Your task to perform on an android device: add a contact in the contacts app Image 0: 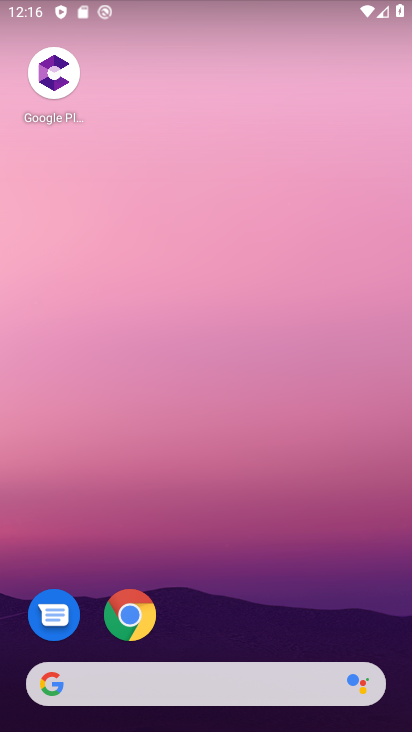
Step 0: drag from (314, 506) to (282, 173)
Your task to perform on an android device: add a contact in the contacts app Image 1: 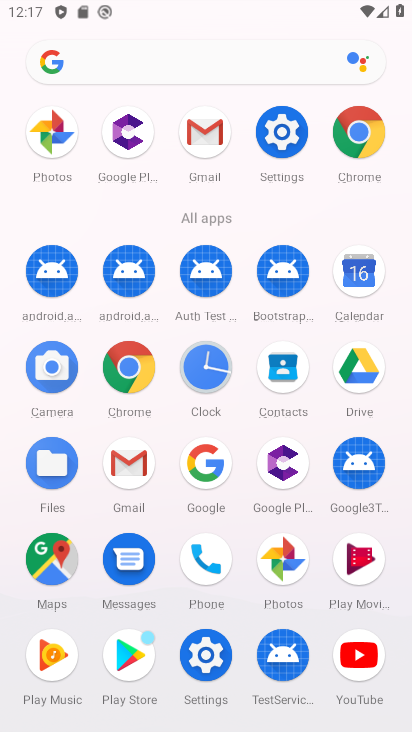
Step 1: click (285, 371)
Your task to perform on an android device: add a contact in the contacts app Image 2: 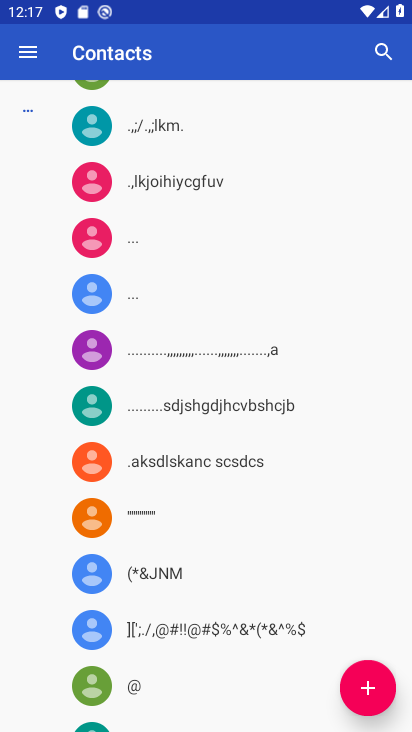
Step 2: click (368, 695)
Your task to perform on an android device: add a contact in the contacts app Image 3: 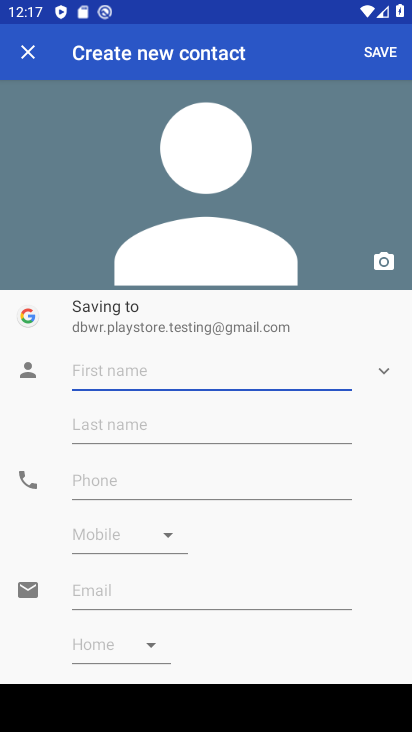
Step 3: type "ravi"
Your task to perform on an android device: add a contact in the contacts app Image 4: 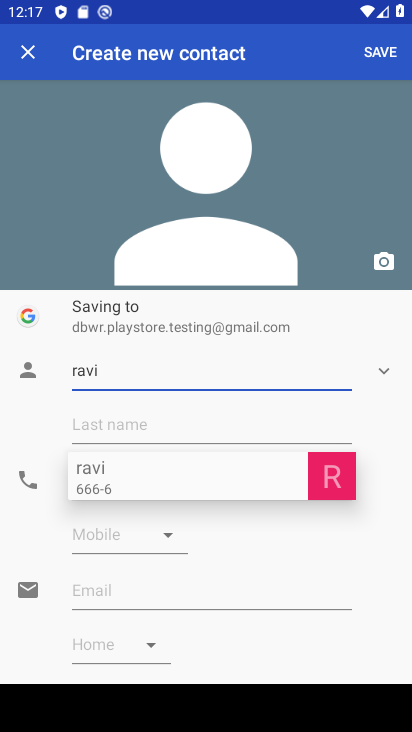
Step 4: click (147, 489)
Your task to perform on an android device: add a contact in the contacts app Image 5: 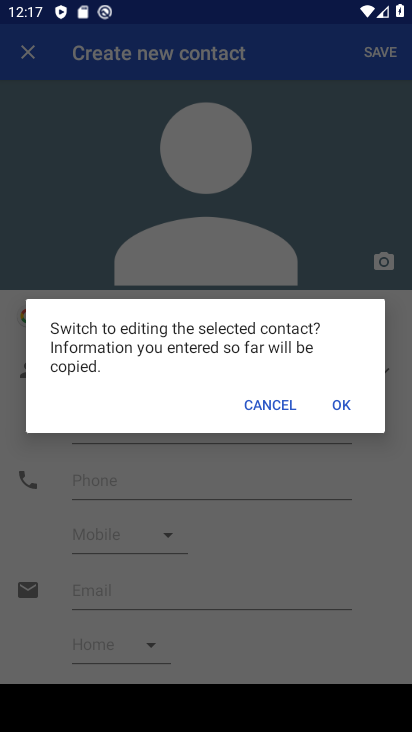
Step 5: click (277, 408)
Your task to perform on an android device: add a contact in the contacts app Image 6: 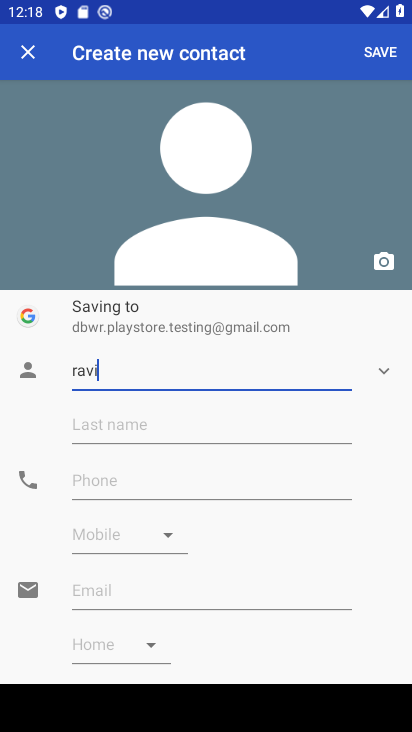
Step 6: click (214, 484)
Your task to perform on an android device: add a contact in the contacts app Image 7: 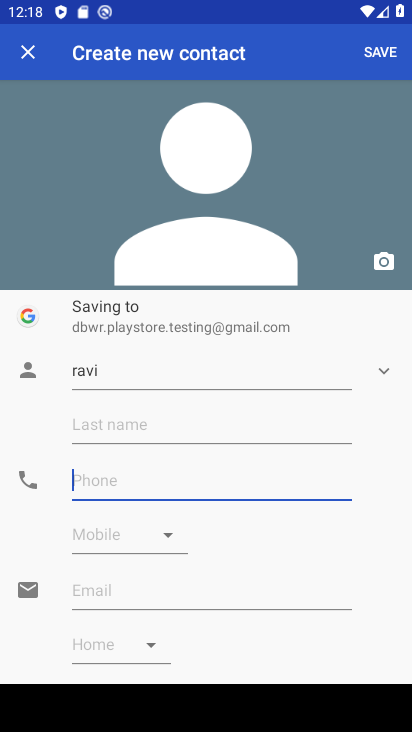
Step 7: type "483484893489"
Your task to perform on an android device: add a contact in the contacts app Image 8: 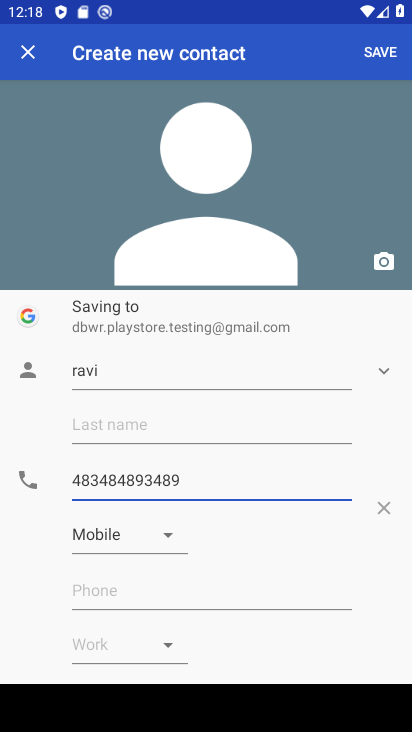
Step 8: click (378, 57)
Your task to perform on an android device: add a contact in the contacts app Image 9: 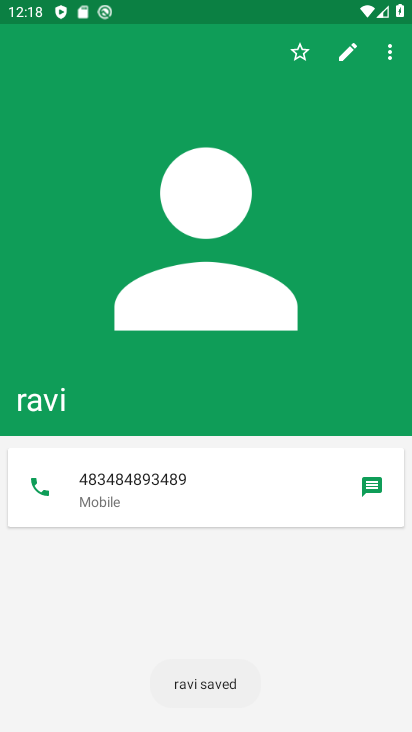
Step 9: task complete